Your task to perform on an android device: install app "Cash App" Image 0: 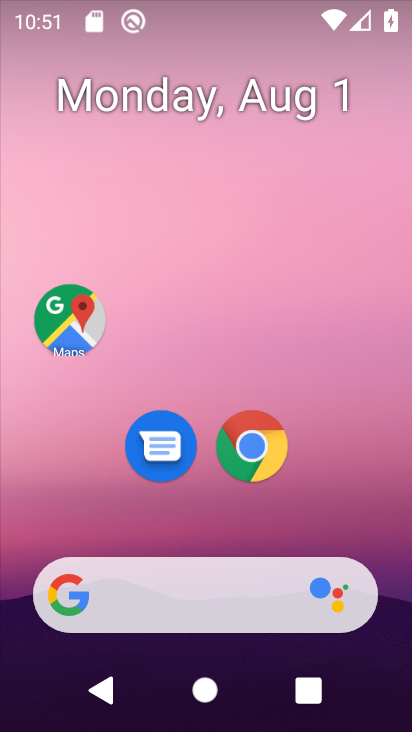
Step 0: drag from (220, 508) to (268, 81)
Your task to perform on an android device: install app "Cash App" Image 1: 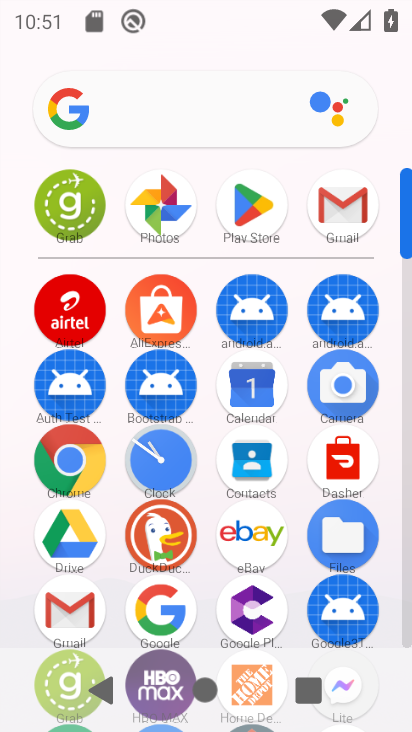
Step 1: click (257, 204)
Your task to perform on an android device: install app "Cash App" Image 2: 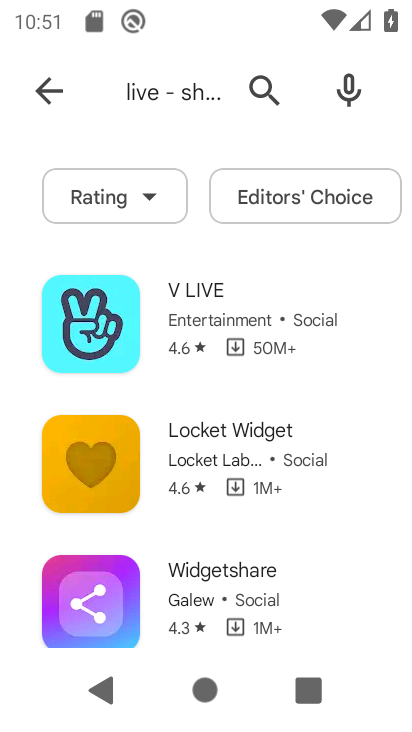
Step 2: click (262, 82)
Your task to perform on an android device: install app "Cash App" Image 3: 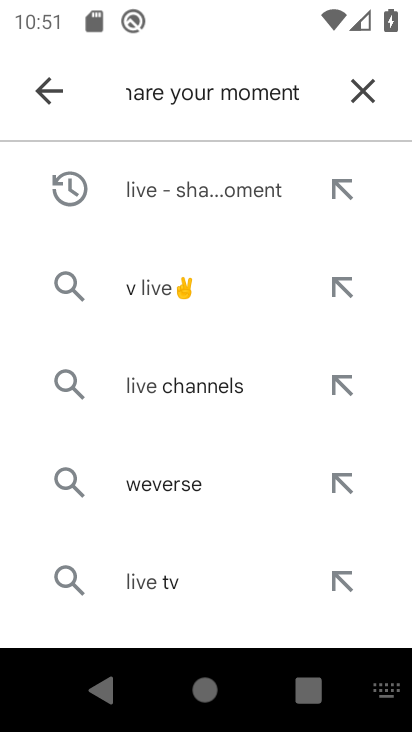
Step 3: click (365, 90)
Your task to perform on an android device: install app "Cash App" Image 4: 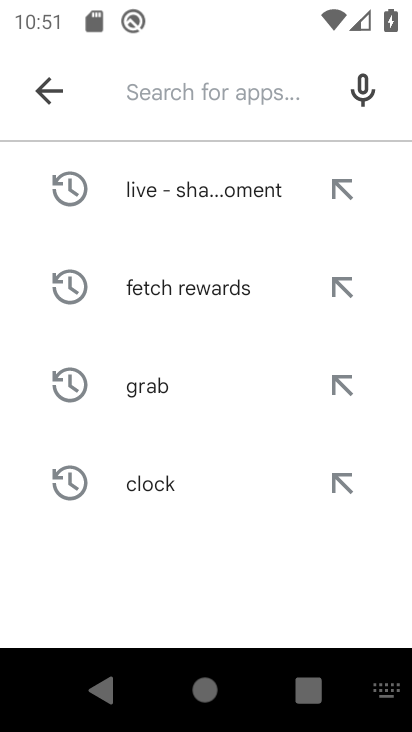
Step 4: type "Cash App"
Your task to perform on an android device: install app "Cash App" Image 5: 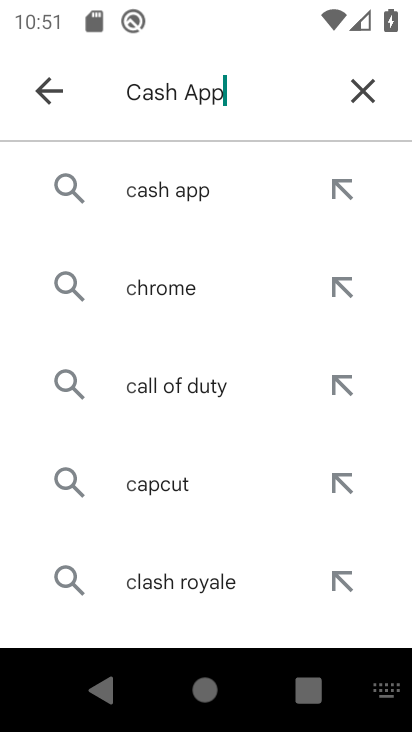
Step 5: type ""
Your task to perform on an android device: install app "Cash App" Image 6: 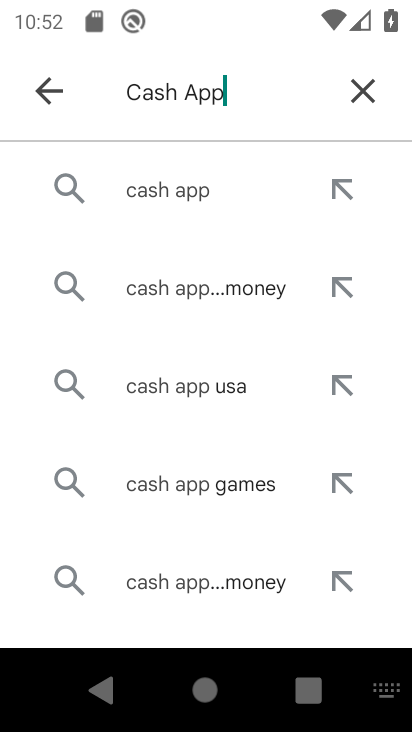
Step 6: press home button
Your task to perform on an android device: install app "Cash App" Image 7: 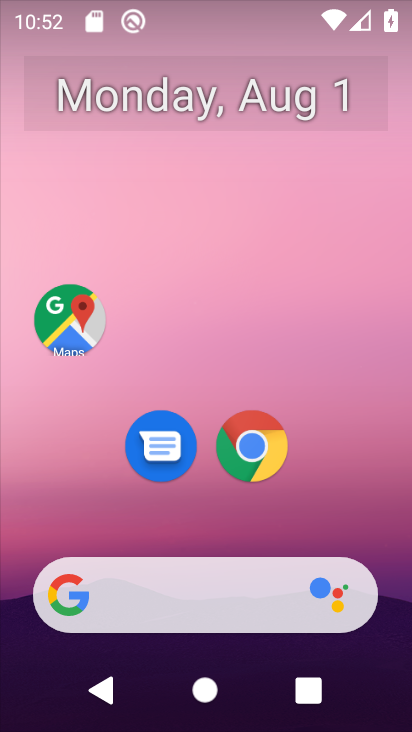
Step 7: drag from (197, 544) to (210, 123)
Your task to perform on an android device: install app "Cash App" Image 8: 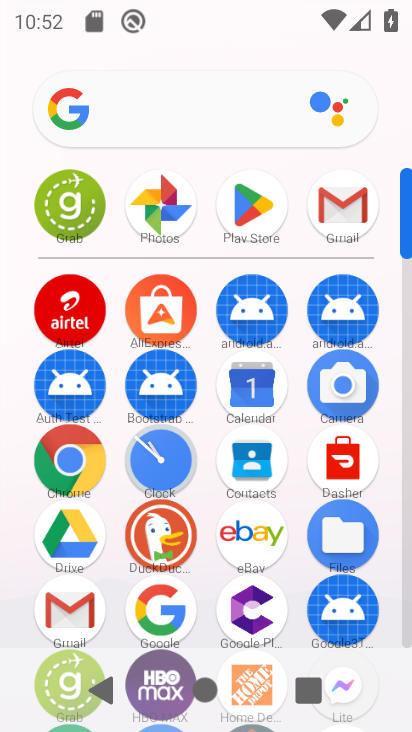
Step 8: click (241, 194)
Your task to perform on an android device: install app "Cash App" Image 9: 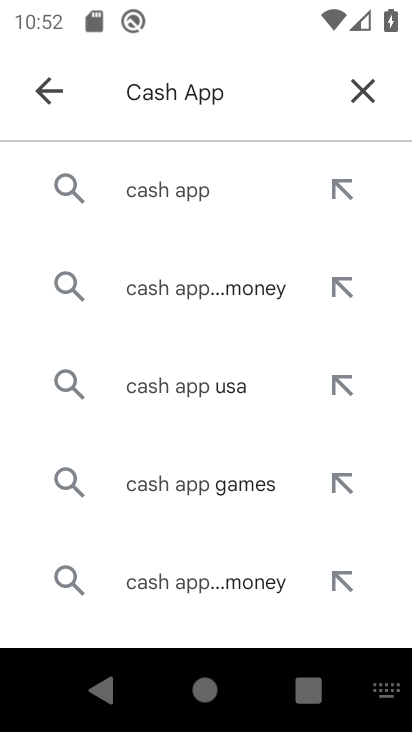
Step 9: click (368, 83)
Your task to perform on an android device: install app "Cash App" Image 10: 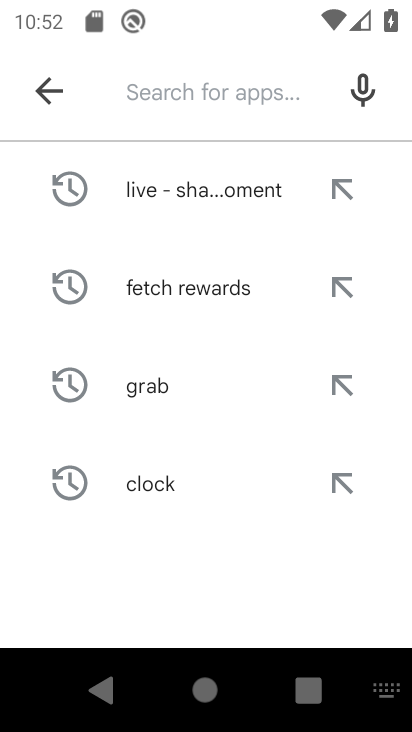
Step 10: type "Cash App"
Your task to perform on an android device: install app "Cash App" Image 11: 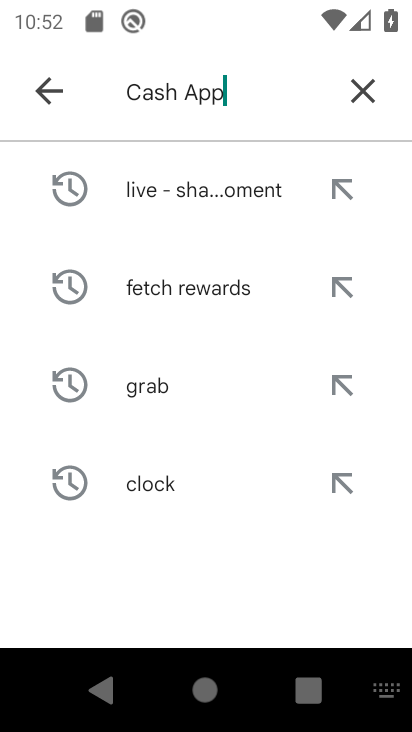
Step 11: type ""
Your task to perform on an android device: install app "Cash App" Image 12: 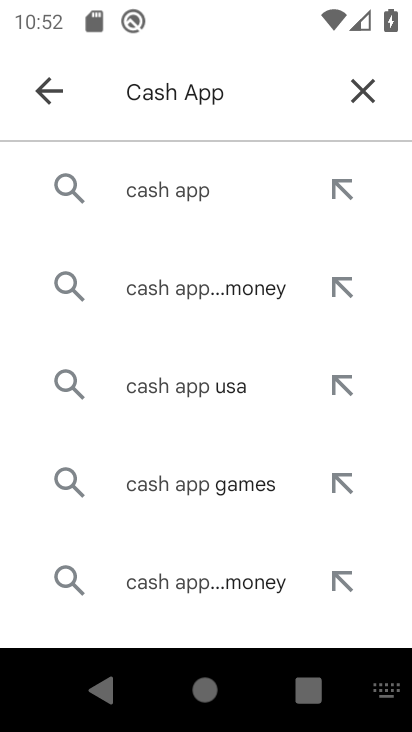
Step 12: click (229, 185)
Your task to perform on an android device: install app "Cash App" Image 13: 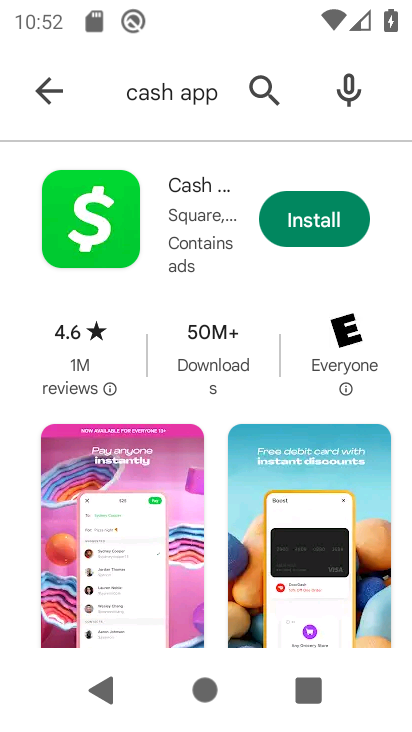
Step 13: click (315, 212)
Your task to perform on an android device: install app "Cash App" Image 14: 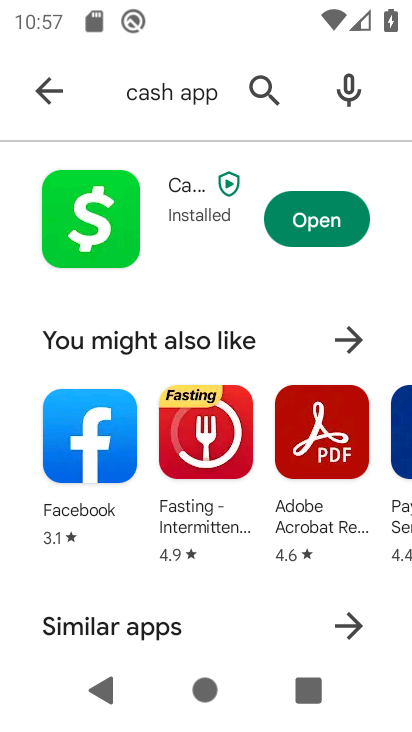
Step 14: task complete